Your task to perform on an android device: Show me popular videos on Youtube Image 0: 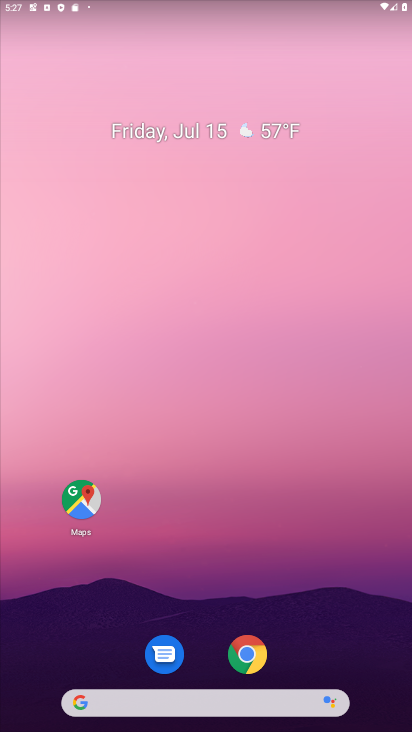
Step 0: drag from (197, 651) to (137, 171)
Your task to perform on an android device: Show me popular videos on Youtube Image 1: 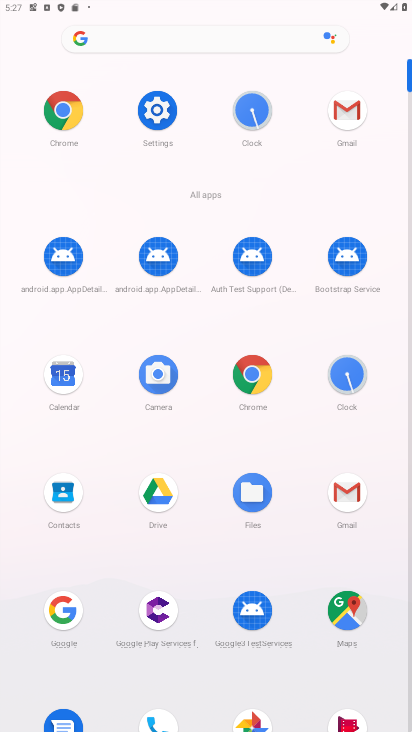
Step 1: drag from (313, 677) to (311, 208)
Your task to perform on an android device: Show me popular videos on Youtube Image 2: 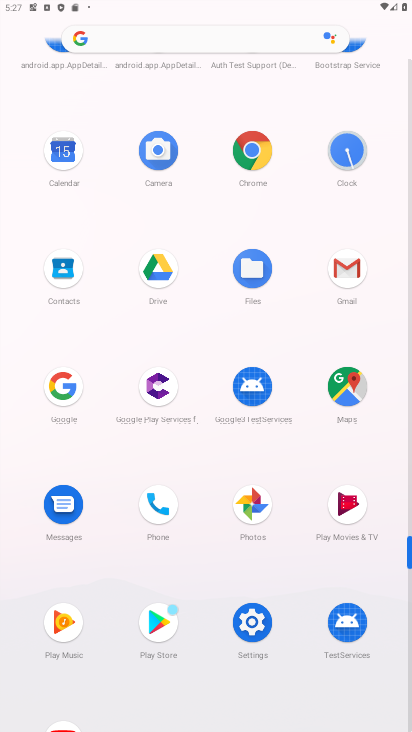
Step 2: drag from (256, 672) to (258, 192)
Your task to perform on an android device: Show me popular videos on Youtube Image 3: 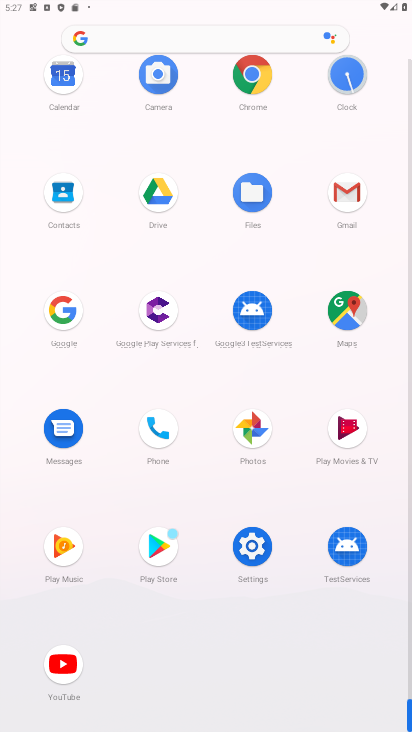
Step 3: click (63, 645)
Your task to perform on an android device: Show me popular videos on Youtube Image 4: 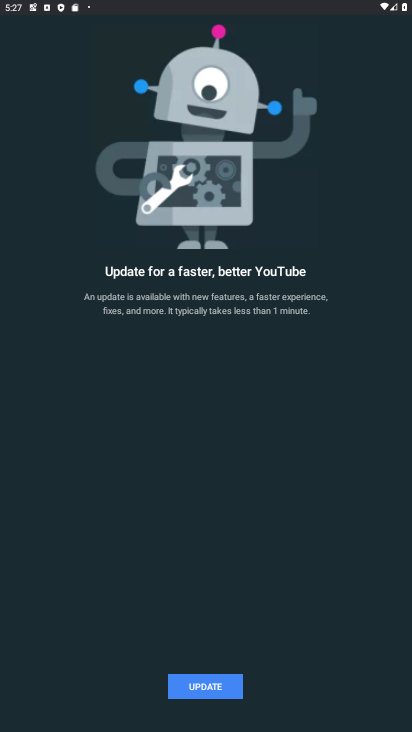
Step 4: click (231, 687)
Your task to perform on an android device: Show me popular videos on Youtube Image 5: 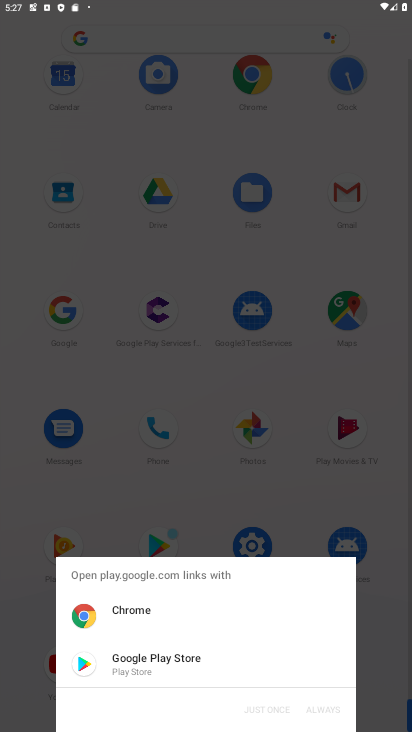
Step 5: click (181, 672)
Your task to perform on an android device: Show me popular videos on Youtube Image 6: 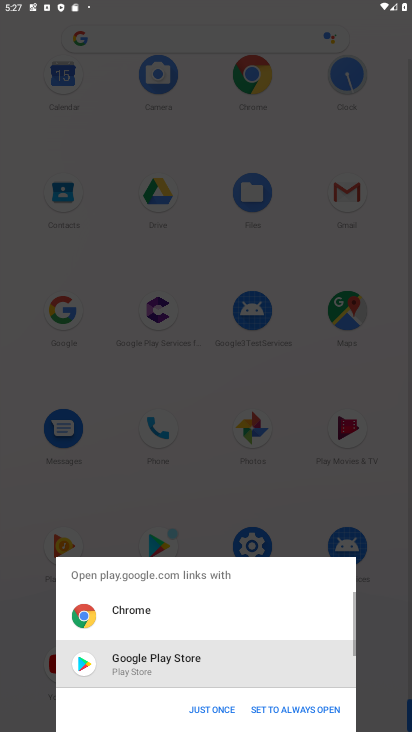
Step 6: click (253, 706)
Your task to perform on an android device: Show me popular videos on Youtube Image 7: 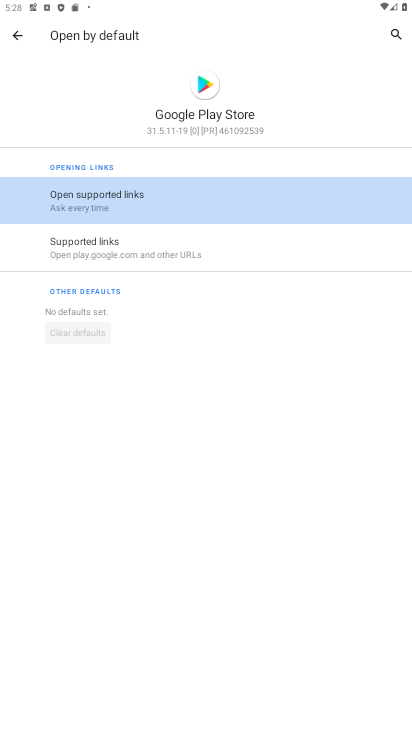
Step 7: press back button
Your task to perform on an android device: Show me popular videos on Youtube Image 8: 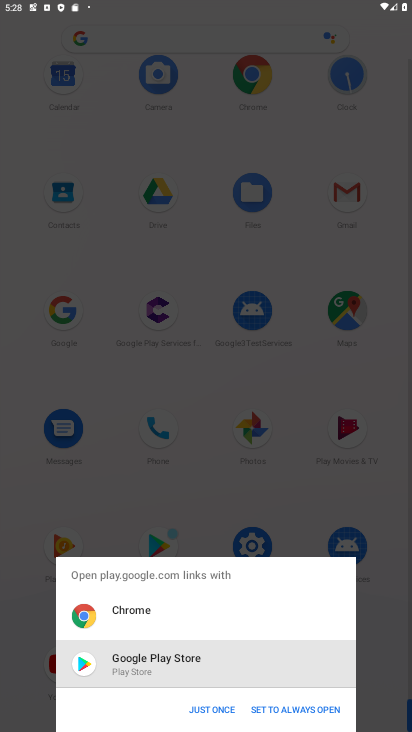
Step 8: click (209, 714)
Your task to perform on an android device: Show me popular videos on Youtube Image 9: 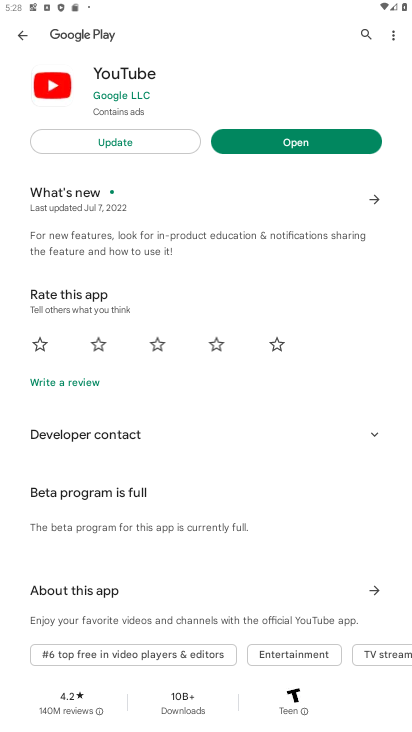
Step 9: click (150, 144)
Your task to perform on an android device: Show me popular videos on Youtube Image 10: 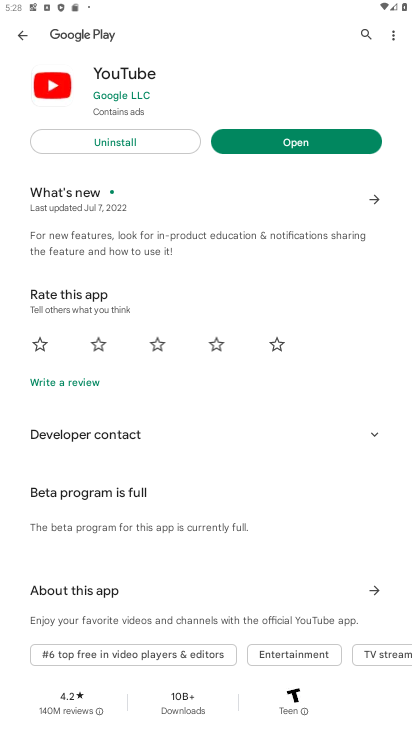
Step 10: click (291, 146)
Your task to perform on an android device: Show me popular videos on Youtube Image 11: 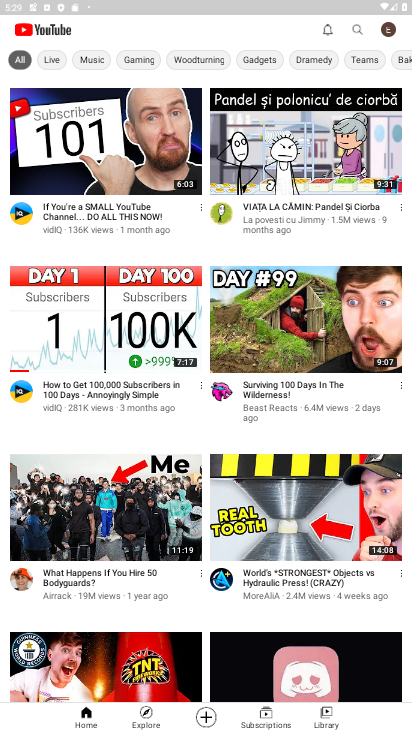
Step 11: click (149, 710)
Your task to perform on an android device: Show me popular videos on Youtube Image 12: 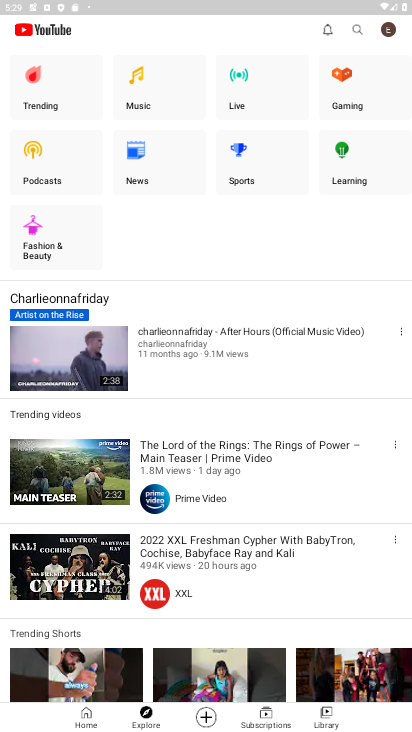
Step 12: click (60, 95)
Your task to perform on an android device: Show me popular videos on Youtube Image 13: 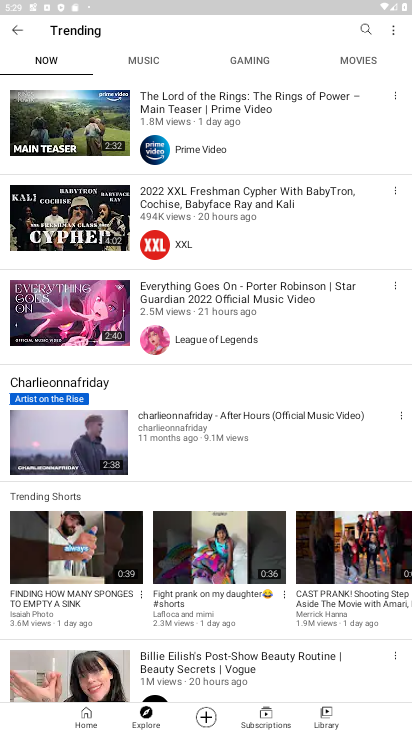
Step 13: task complete